Your task to perform on an android device: Do I have any events today? Image 0: 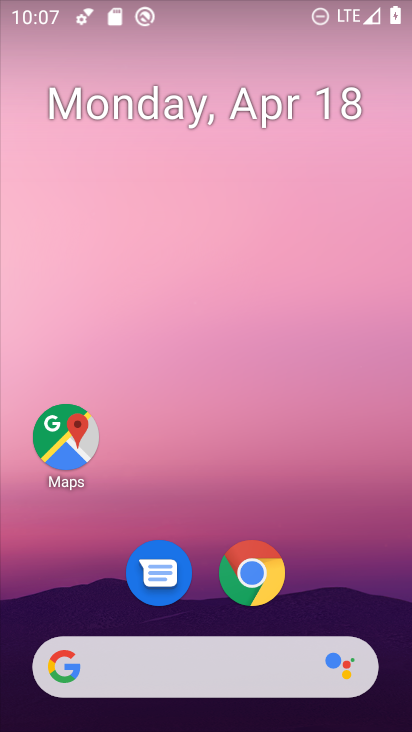
Step 0: drag from (361, 587) to (276, 44)
Your task to perform on an android device: Do I have any events today? Image 1: 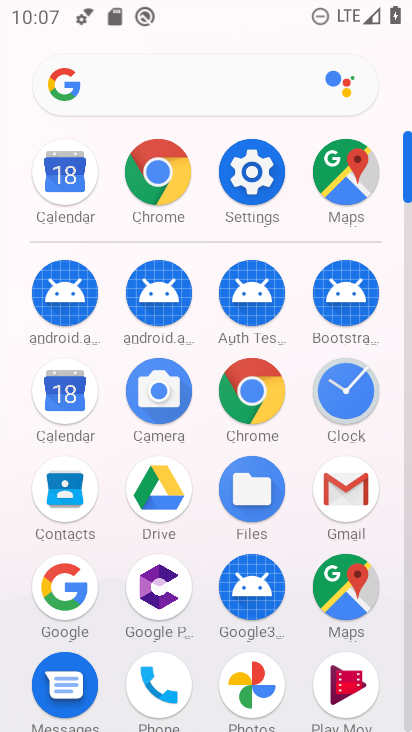
Step 1: click (51, 404)
Your task to perform on an android device: Do I have any events today? Image 2: 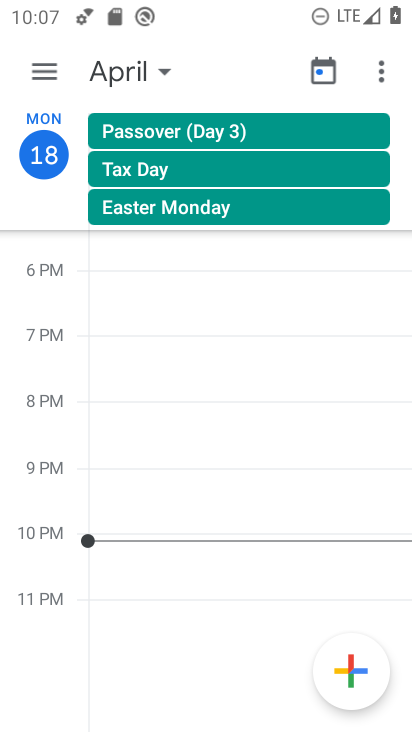
Step 2: task complete